Your task to perform on an android device: Go to settings Image 0: 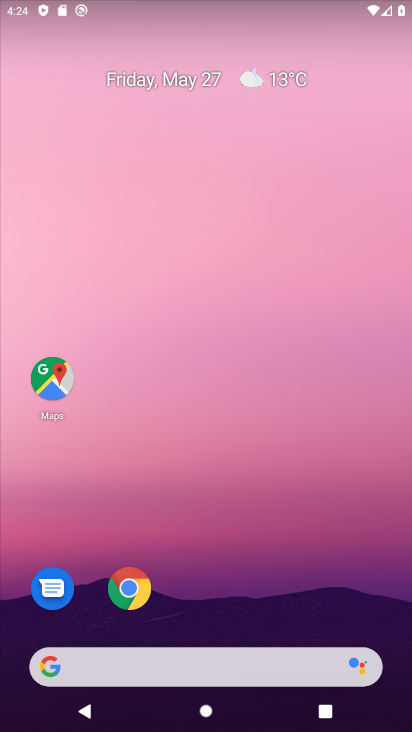
Step 0: drag from (194, 600) to (264, 85)
Your task to perform on an android device: Go to settings Image 1: 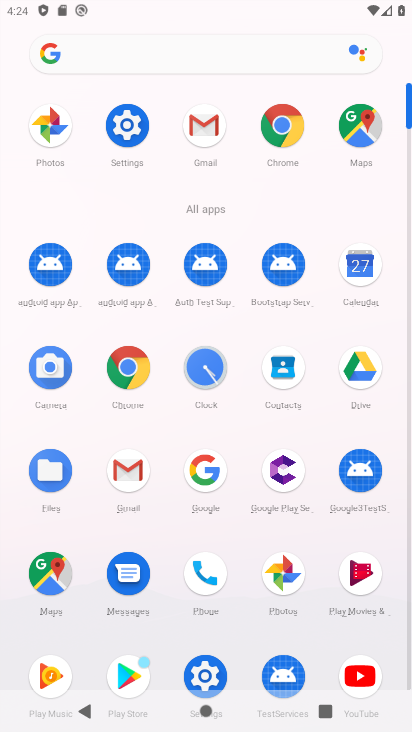
Step 1: click (129, 125)
Your task to perform on an android device: Go to settings Image 2: 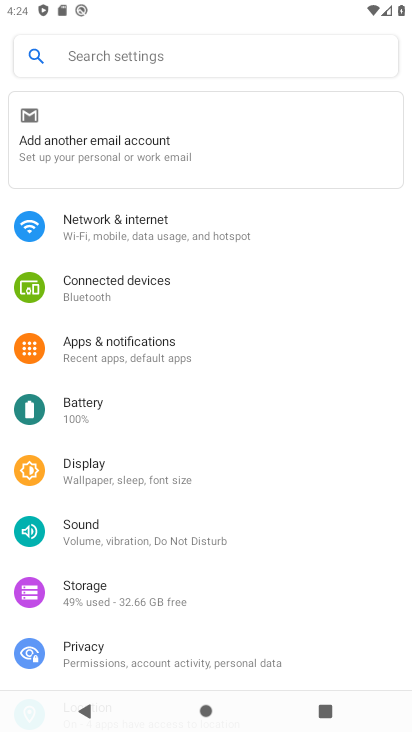
Step 2: task complete